Your task to perform on an android device: Open Chrome and go to the settings page Image 0: 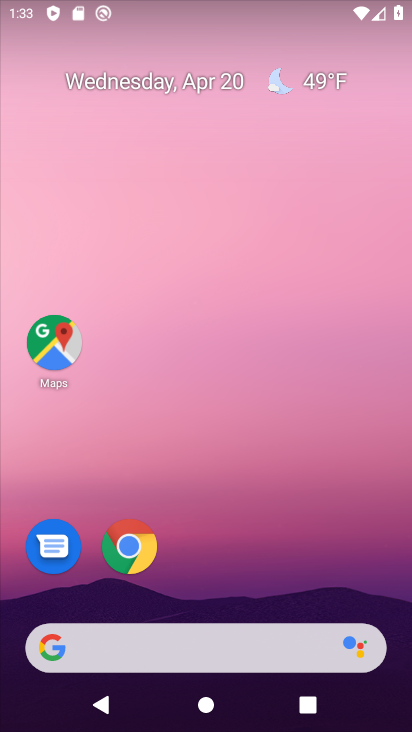
Step 0: click (132, 552)
Your task to perform on an android device: Open Chrome and go to the settings page Image 1: 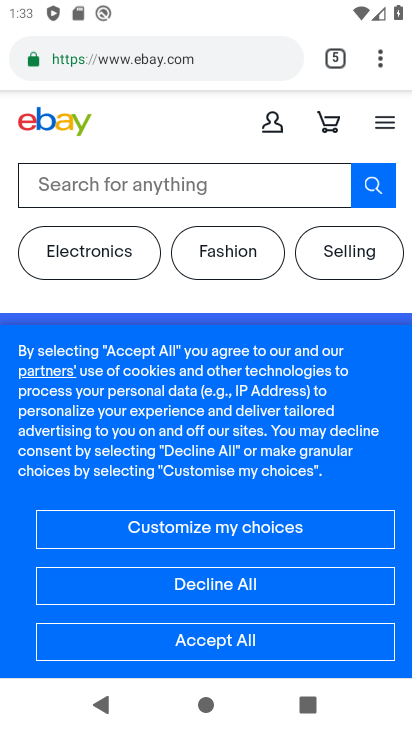
Step 1: click (382, 57)
Your task to perform on an android device: Open Chrome and go to the settings page Image 2: 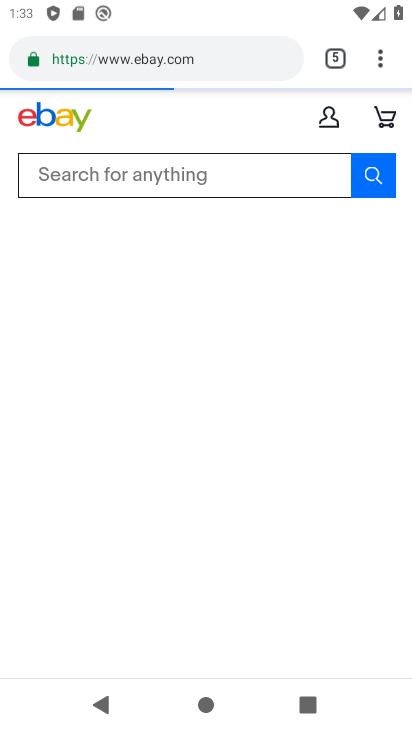
Step 2: task complete